Your task to perform on an android device: delete location history Image 0: 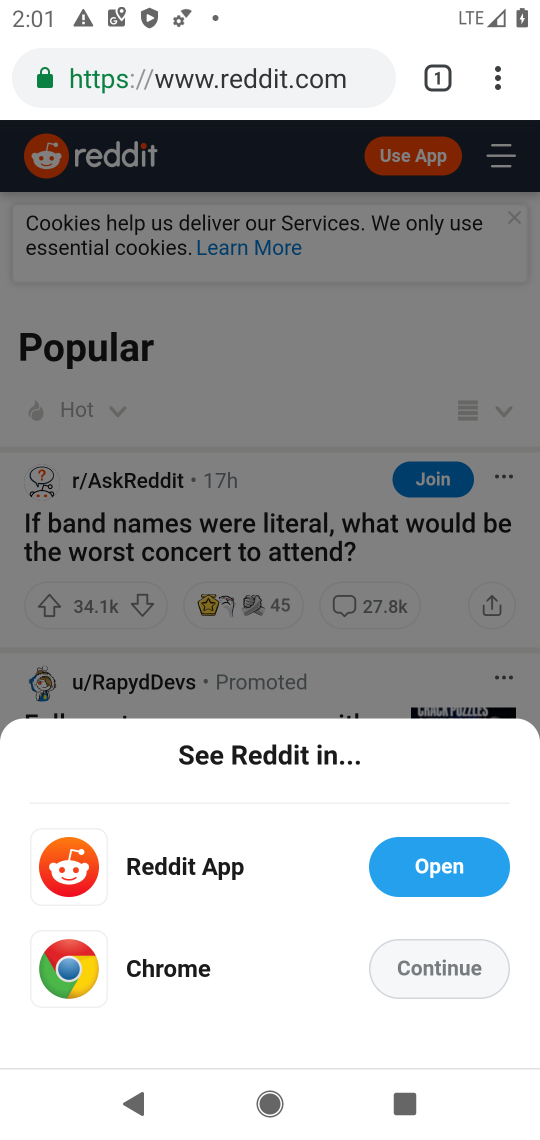
Step 0: press home button
Your task to perform on an android device: delete location history Image 1: 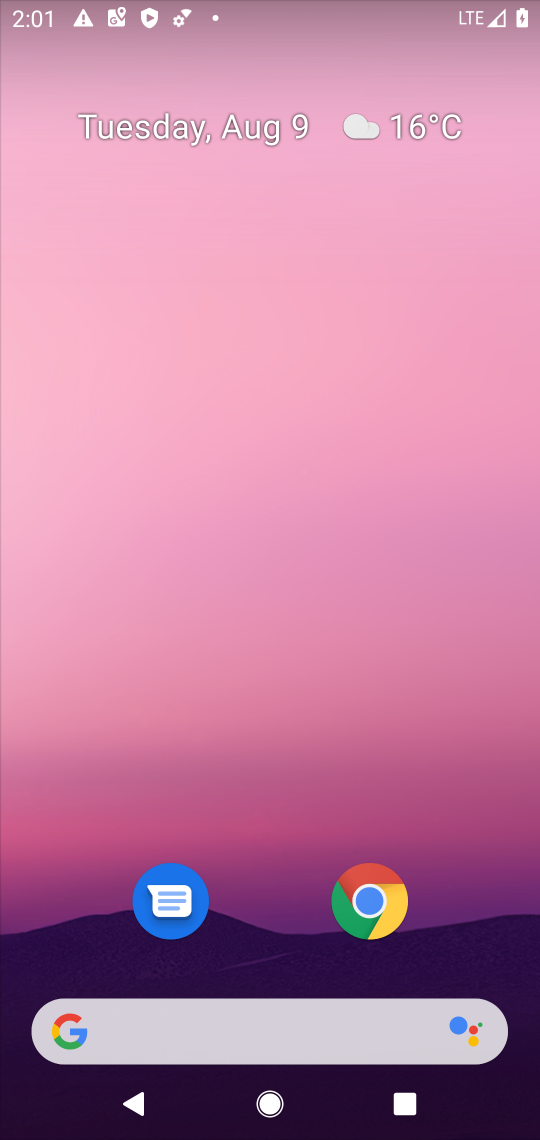
Step 1: drag from (500, 959) to (459, 147)
Your task to perform on an android device: delete location history Image 2: 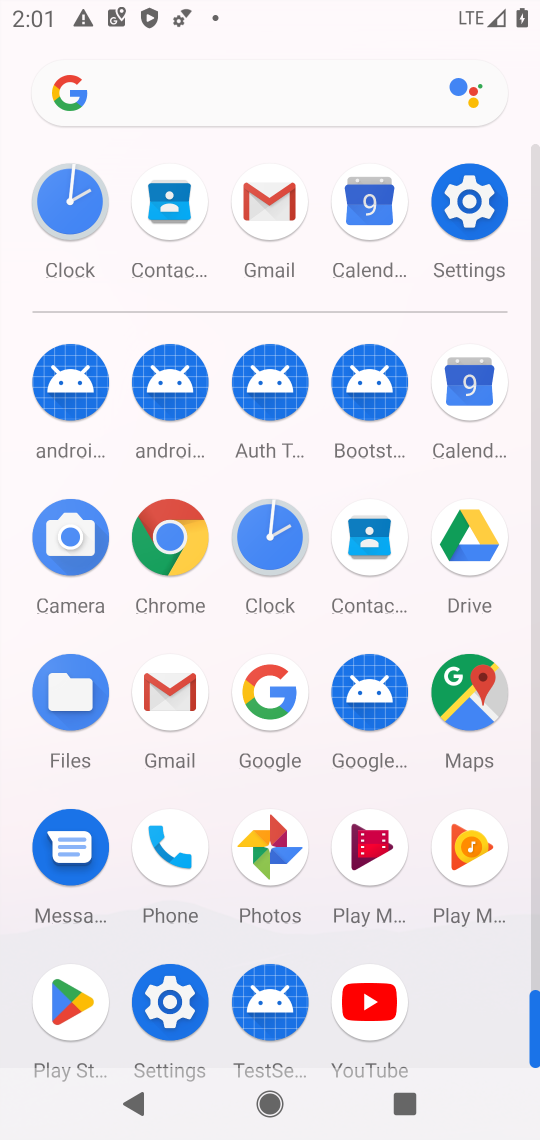
Step 2: click (470, 689)
Your task to perform on an android device: delete location history Image 3: 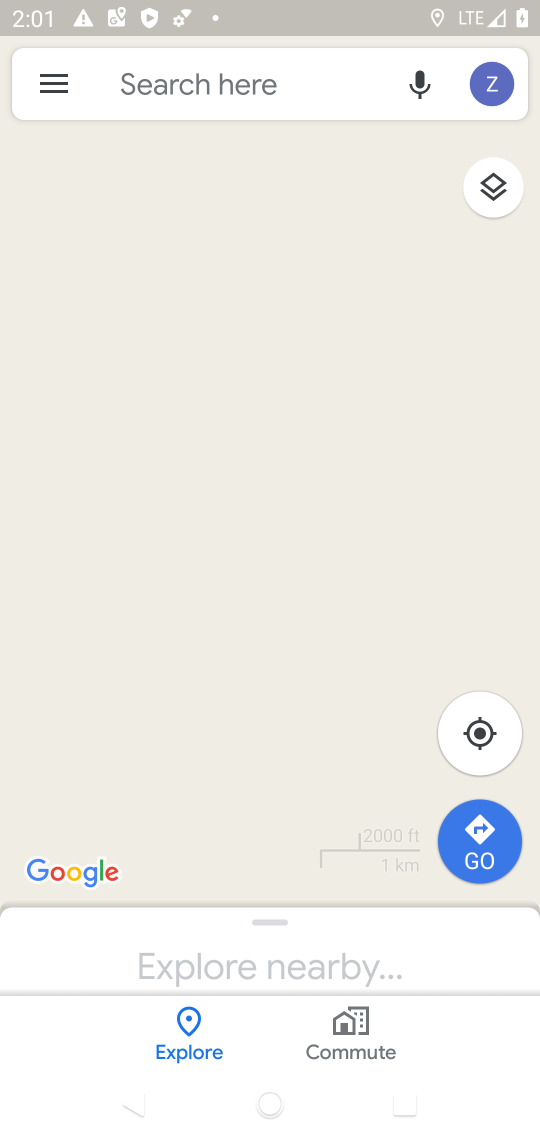
Step 3: click (55, 91)
Your task to perform on an android device: delete location history Image 4: 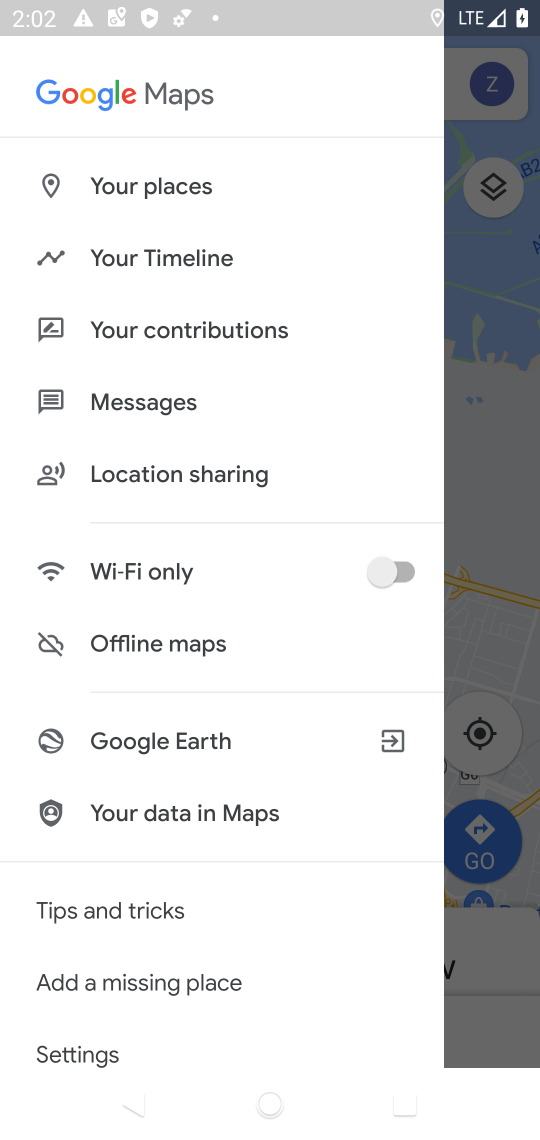
Step 4: drag from (219, 997) to (236, 440)
Your task to perform on an android device: delete location history Image 5: 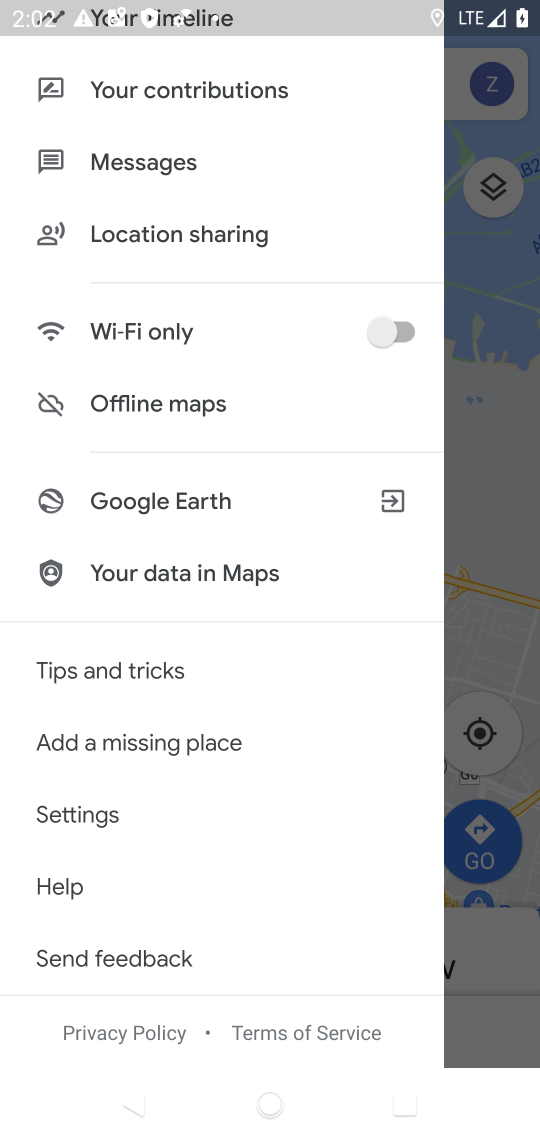
Step 5: click (94, 809)
Your task to perform on an android device: delete location history Image 6: 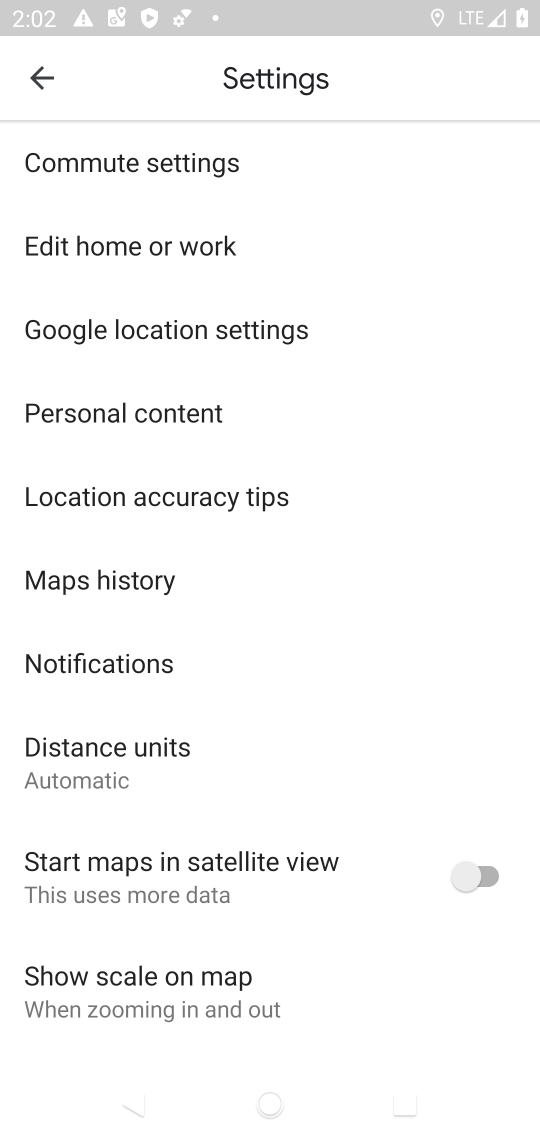
Step 6: click (139, 411)
Your task to perform on an android device: delete location history Image 7: 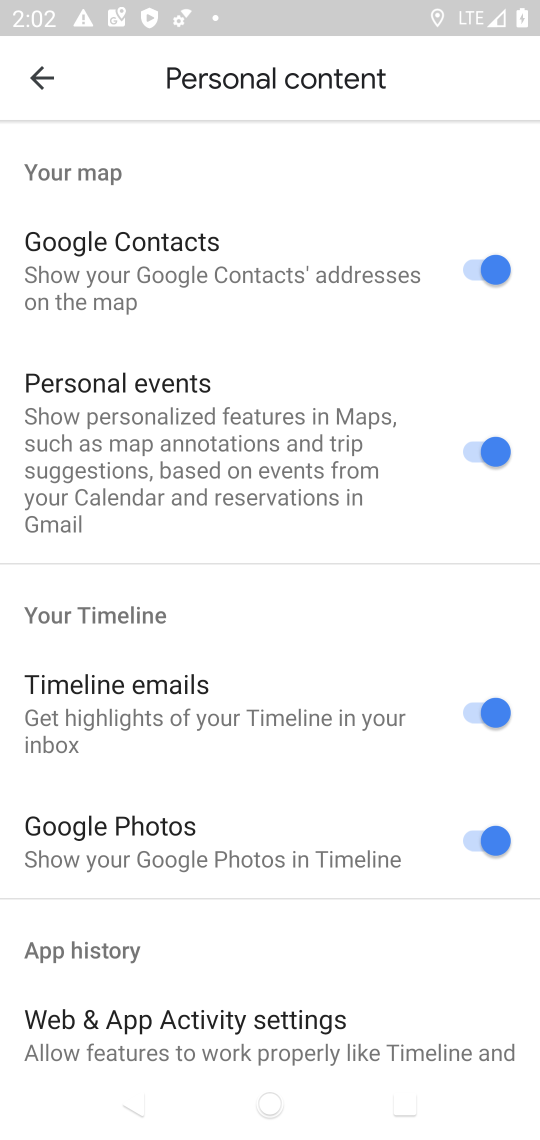
Step 7: drag from (311, 943) to (356, 315)
Your task to perform on an android device: delete location history Image 8: 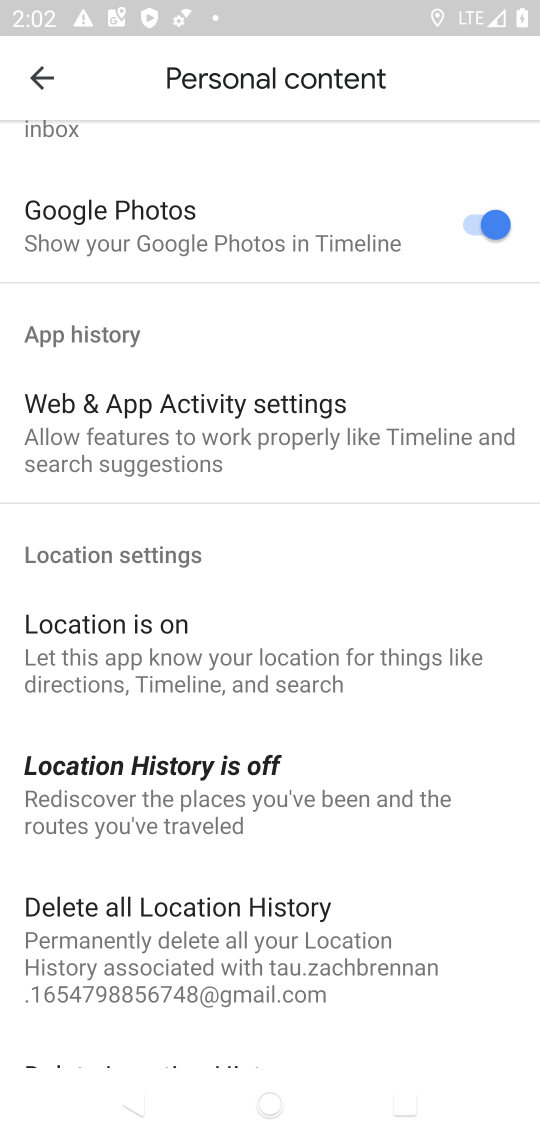
Step 8: click (155, 908)
Your task to perform on an android device: delete location history Image 9: 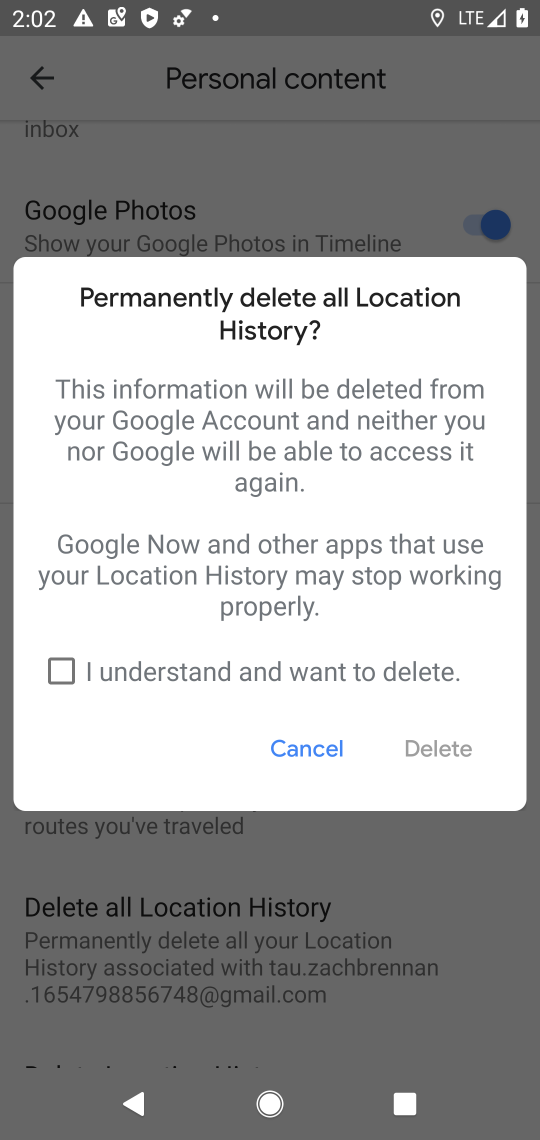
Step 9: click (58, 668)
Your task to perform on an android device: delete location history Image 10: 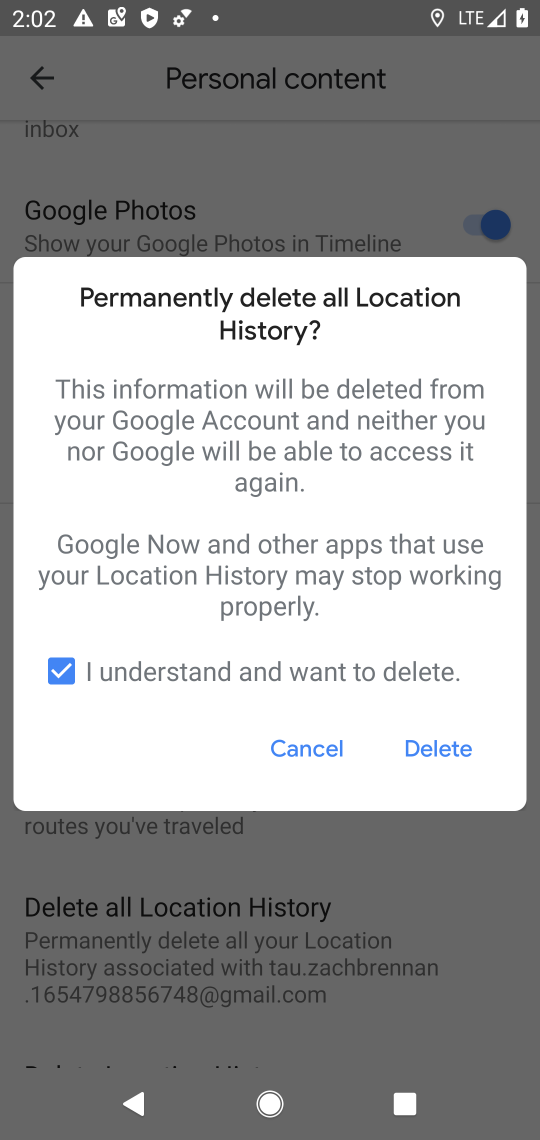
Step 10: click (435, 753)
Your task to perform on an android device: delete location history Image 11: 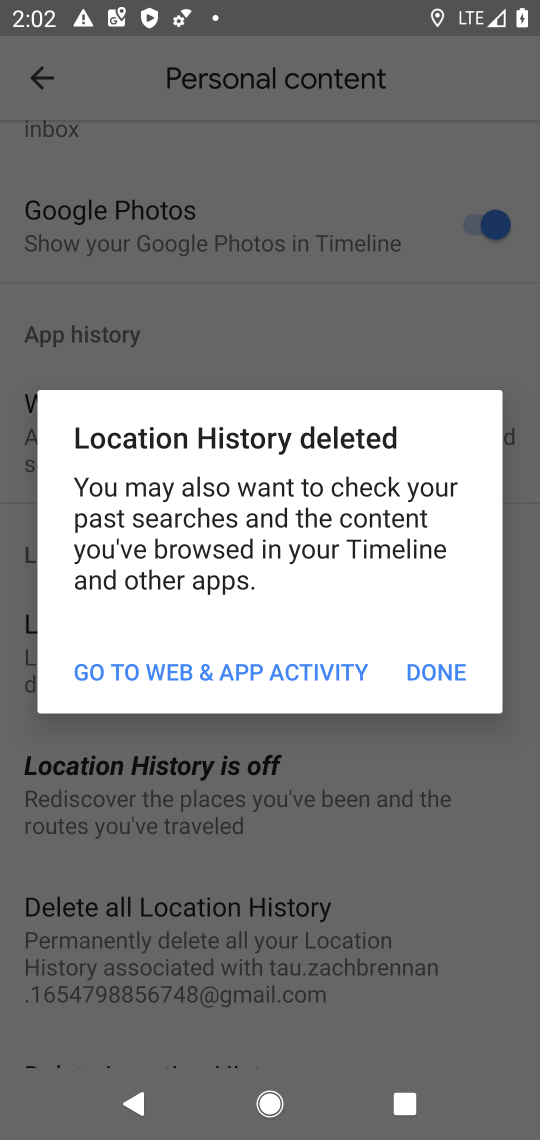
Step 11: click (431, 670)
Your task to perform on an android device: delete location history Image 12: 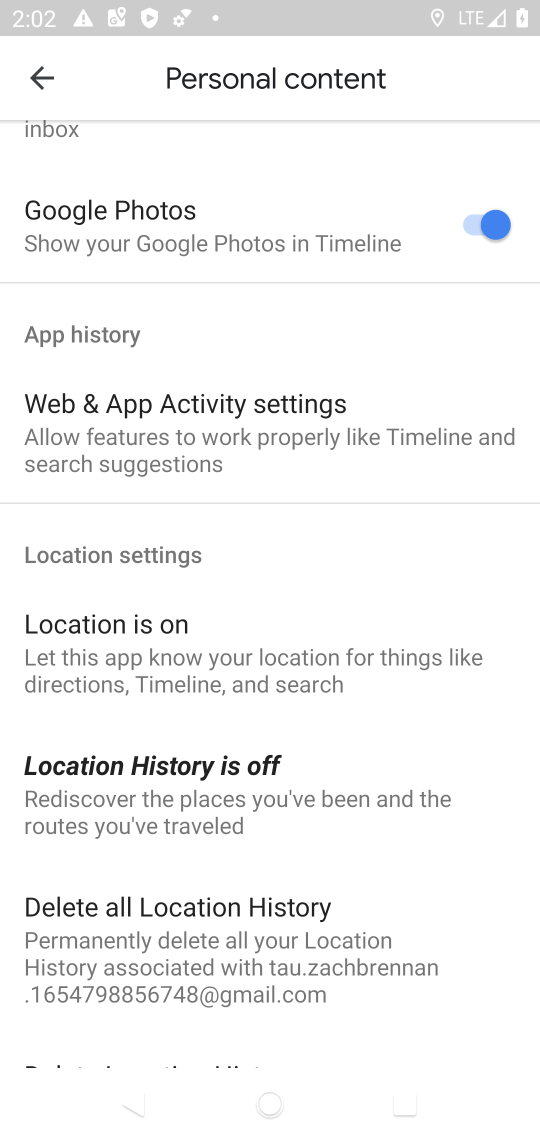
Step 12: task complete